Your task to perform on an android device: open a bookmark in the chrome app Image 0: 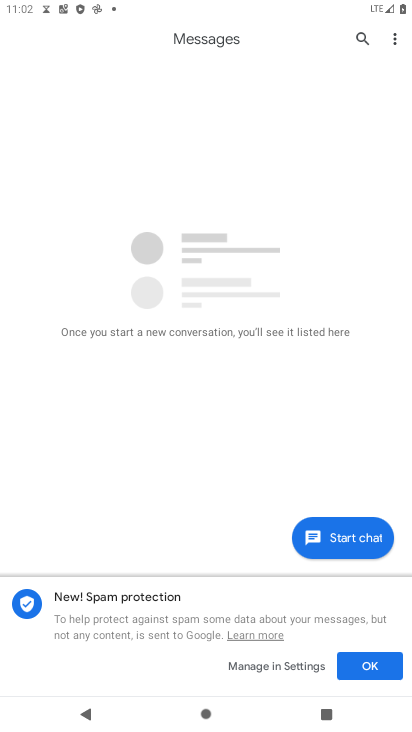
Step 0: click (135, 606)
Your task to perform on an android device: open a bookmark in the chrome app Image 1: 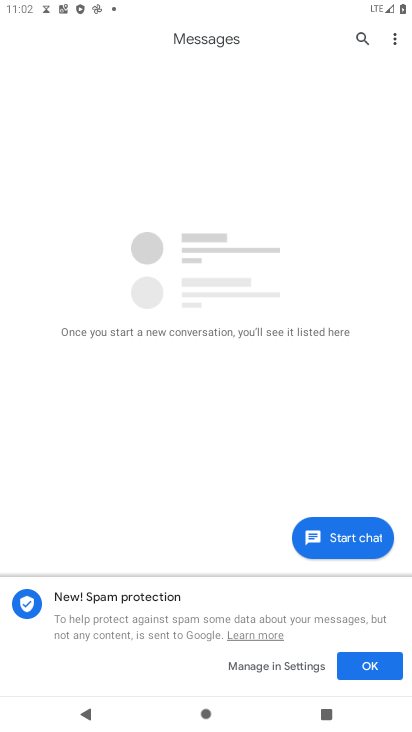
Step 1: press home button
Your task to perform on an android device: open a bookmark in the chrome app Image 2: 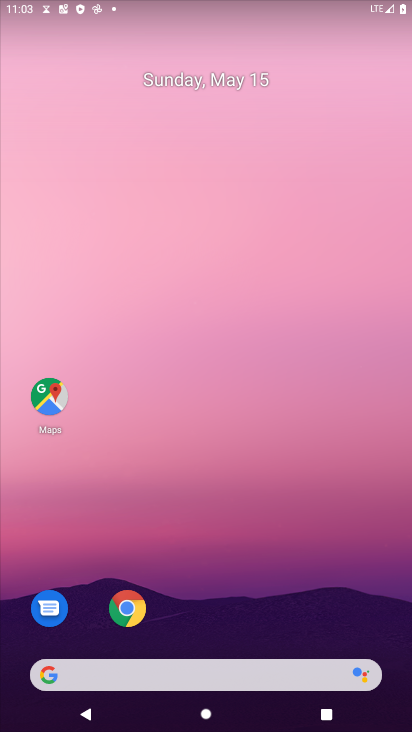
Step 2: click (129, 608)
Your task to perform on an android device: open a bookmark in the chrome app Image 3: 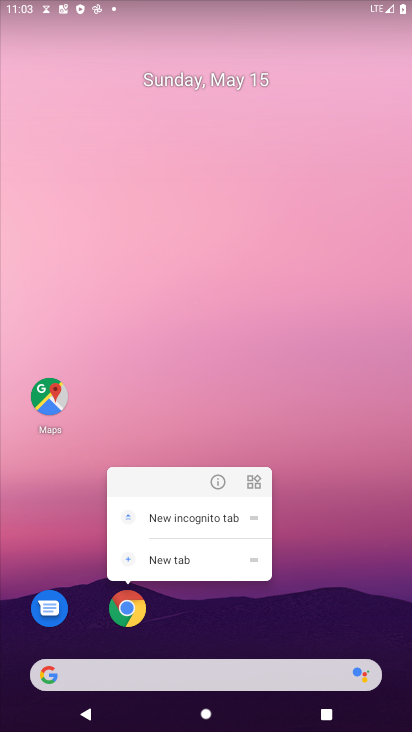
Step 3: click (130, 613)
Your task to perform on an android device: open a bookmark in the chrome app Image 4: 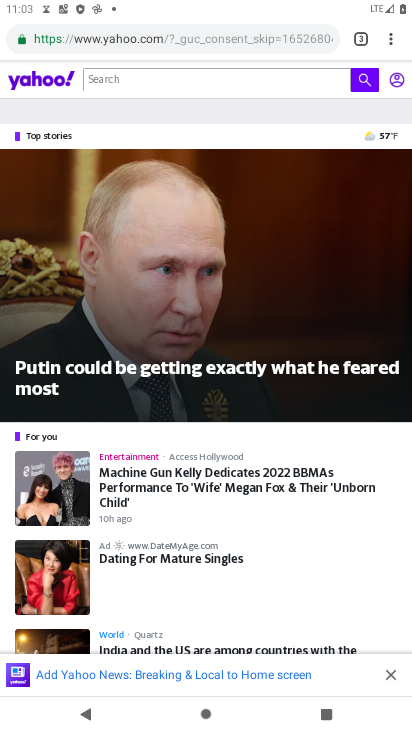
Step 4: drag from (393, 30) to (286, 479)
Your task to perform on an android device: open a bookmark in the chrome app Image 5: 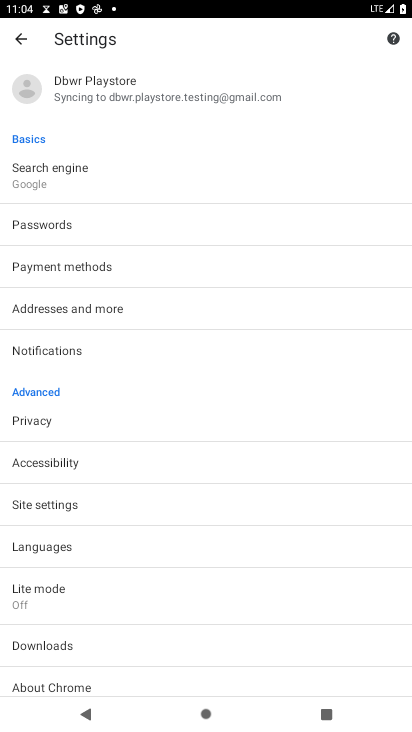
Step 5: drag from (165, 328) to (212, 577)
Your task to perform on an android device: open a bookmark in the chrome app Image 6: 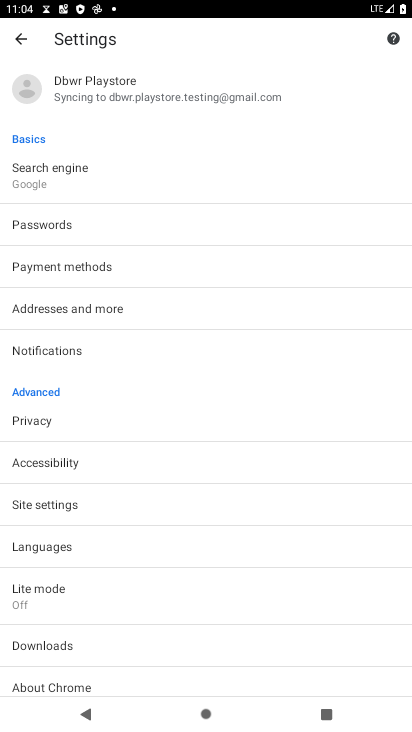
Step 6: click (13, 33)
Your task to perform on an android device: open a bookmark in the chrome app Image 7: 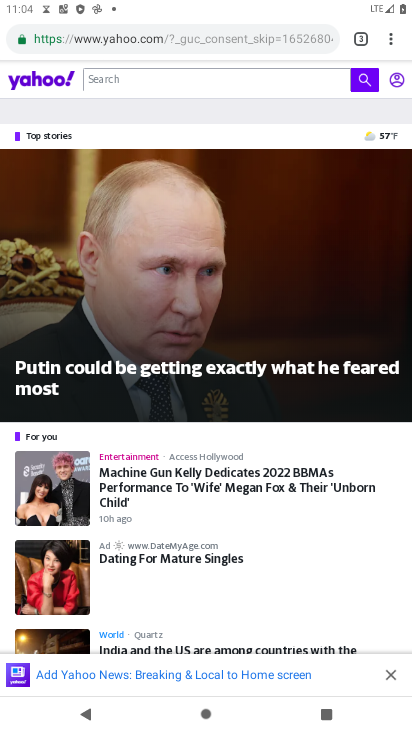
Step 7: task complete